Your task to perform on an android device: turn off priority inbox in the gmail app Image 0: 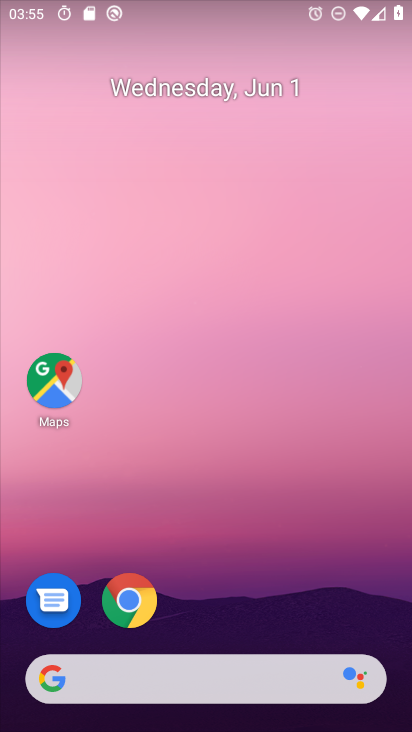
Step 0: drag from (222, 625) to (264, 272)
Your task to perform on an android device: turn off priority inbox in the gmail app Image 1: 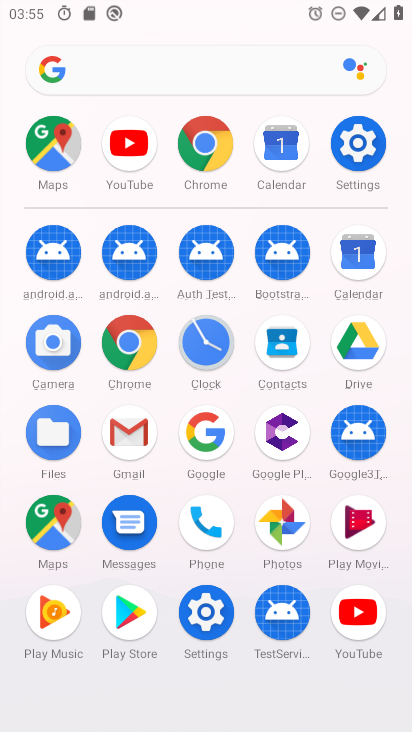
Step 1: click (126, 451)
Your task to perform on an android device: turn off priority inbox in the gmail app Image 2: 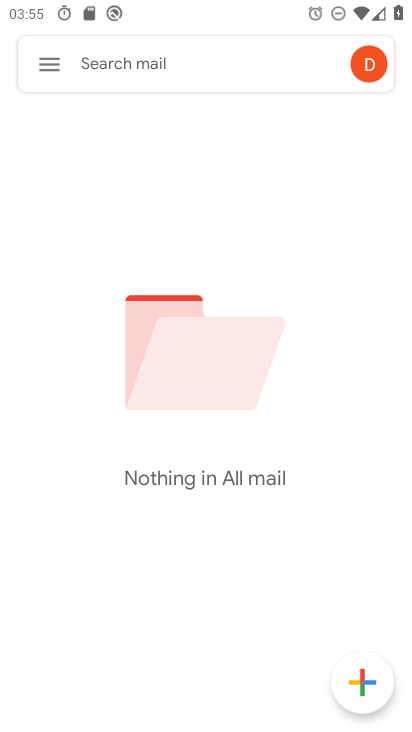
Step 2: click (48, 68)
Your task to perform on an android device: turn off priority inbox in the gmail app Image 3: 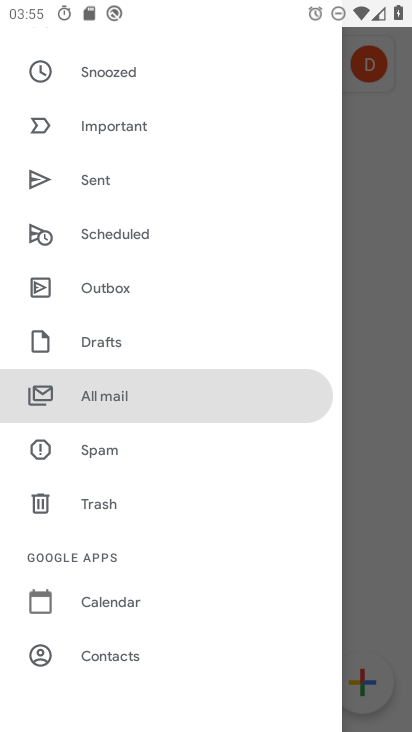
Step 3: drag from (139, 544) to (189, 373)
Your task to perform on an android device: turn off priority inbox in the gmail app Image 4: 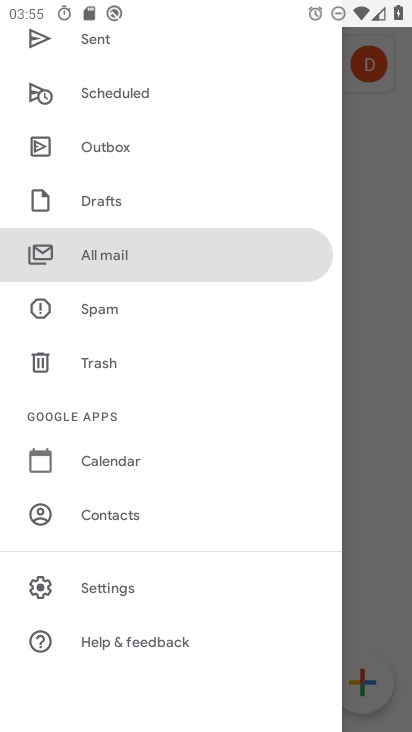
Step 4: click (111, 586)
Your task to perform on an android device: turn off priority inbox in the gmail app Image 5: 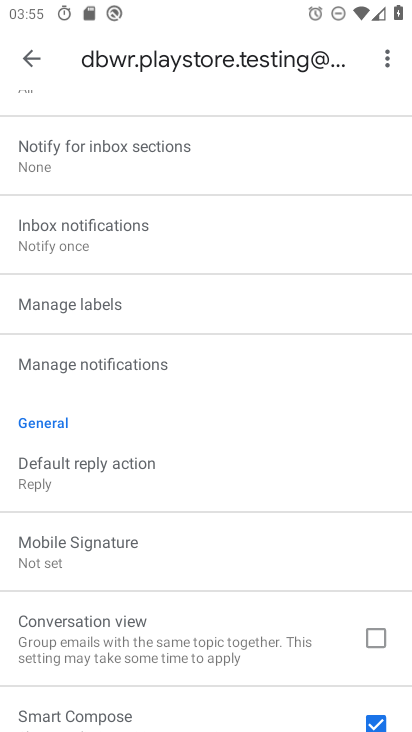
Step 5: drag from (105, 226) to (105, 502)
Your task to perform on an android device: turn off priority inbox in the gmail app Image 6: 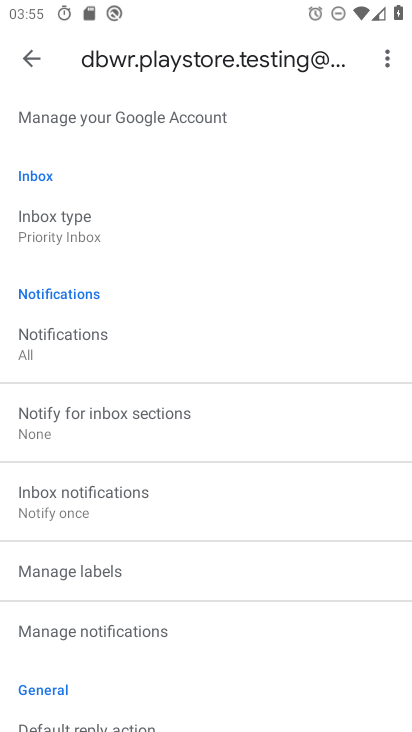
Step 6: drag from (83, 209) to (63, 512)
Your task to perform on an android device: turn off priority inbox in the gmail app Image 7: 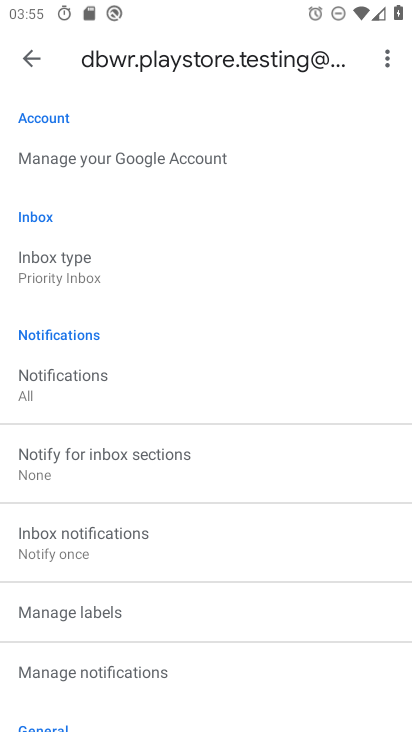
Step 7: drag from (102, 271) to (101, 438)
Your task to perform on an android device: turn off priority inbox in the gmail app Image 8: 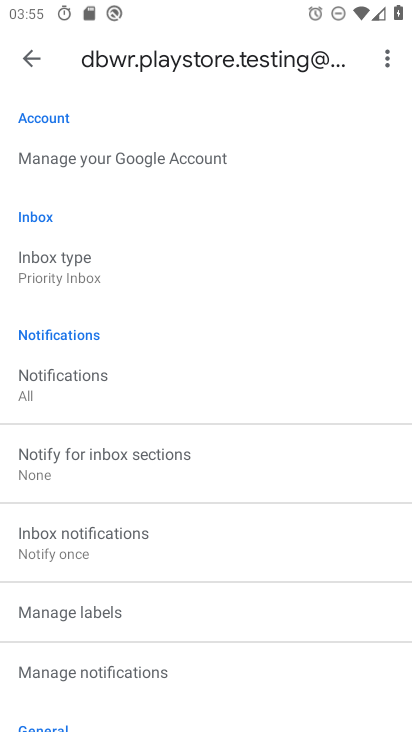
Step 8: click (59, 265)
Your task to perform on an android device: turn off priority inbox in the gmail app Image 9: 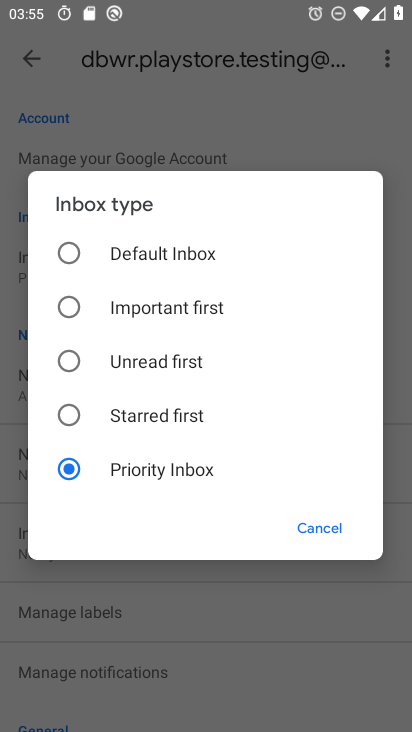
Step 9: task complete